Your task to perform on an android device: Set the phone to "Do not disturb". Image 0: 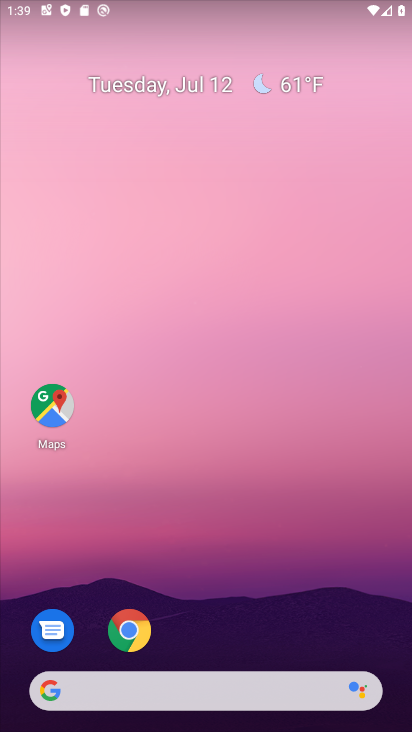
Step 0: drag from (222, 636) to (246, 287)
Your task to perform on an android device: Set the phone to "Do not disturb". Image 1: 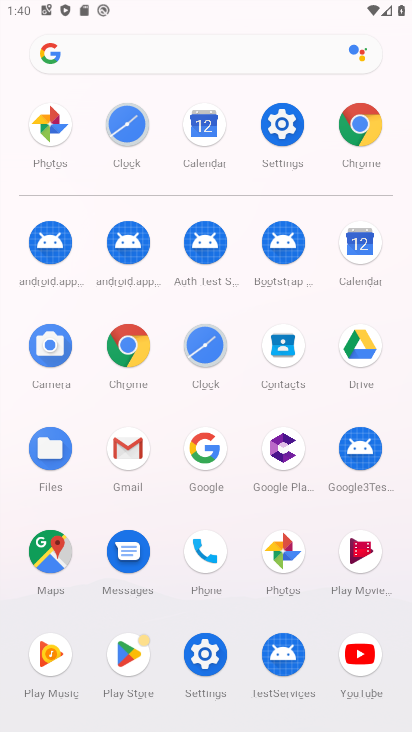
Step 1: click (288, 133)
Your task to perform on an android device: Set the phone to "Do not disturb". Image 2: 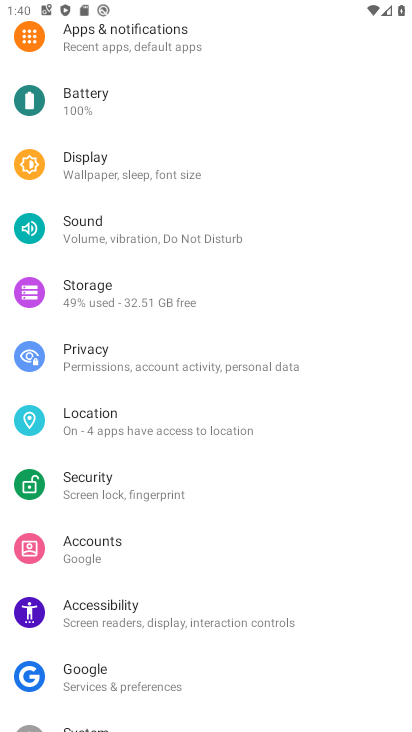
Step 2: click (122, 222)
Your task to perform on an android device: Set the phone to "Do not disturb". Image 3: 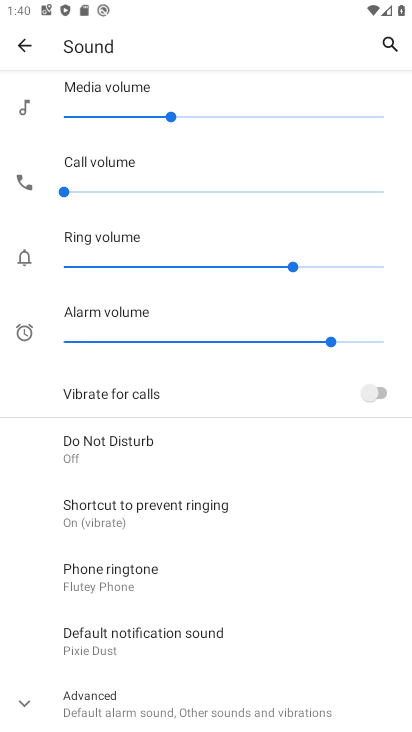
Step 3: click (146, 462)
Your task to perform on an android device: Set the phone to "Do not disturb". Image 4: 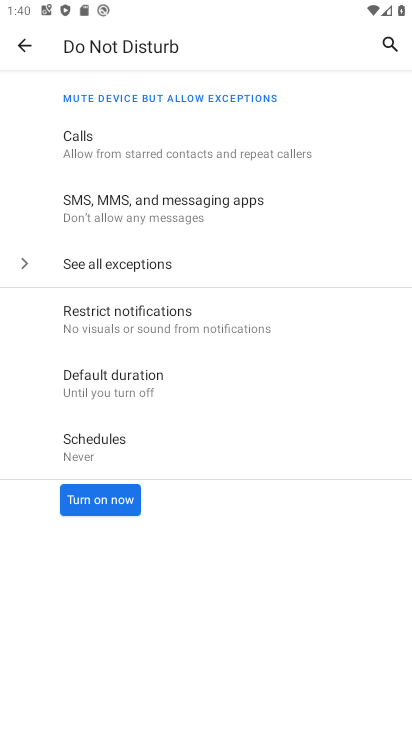
Step 4: click (117, 488)
Your task to perform on an android device: Set the phone to "Do not disturb". Image 5: 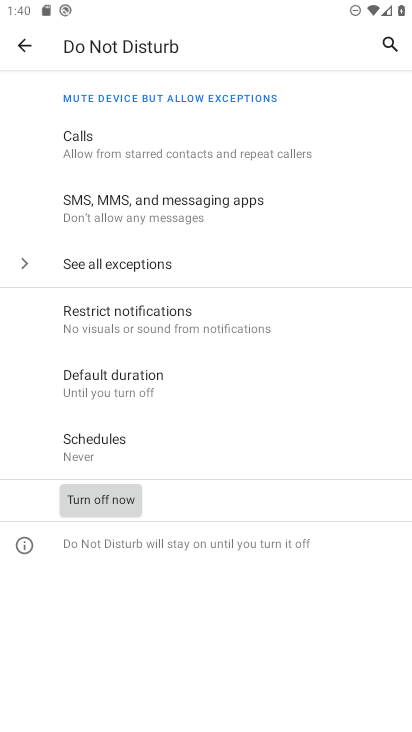
Step 5: task complete